Your task to perform on an android device: turn off javascript in the chrome app Image 0: 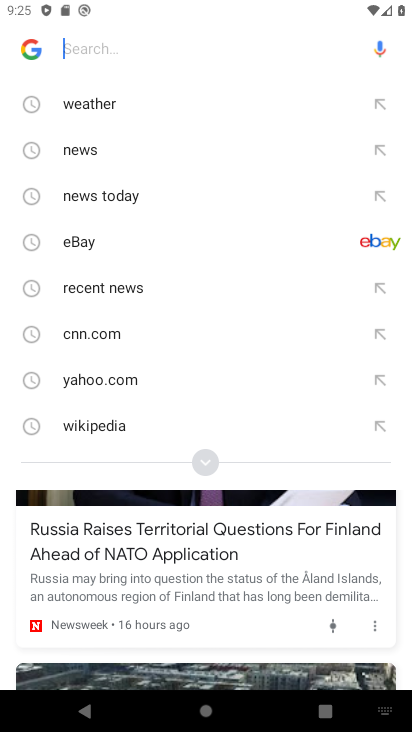
Step 0: press home button
Your task to perform on an android device: turn off javascript in the chrome app Image 1: 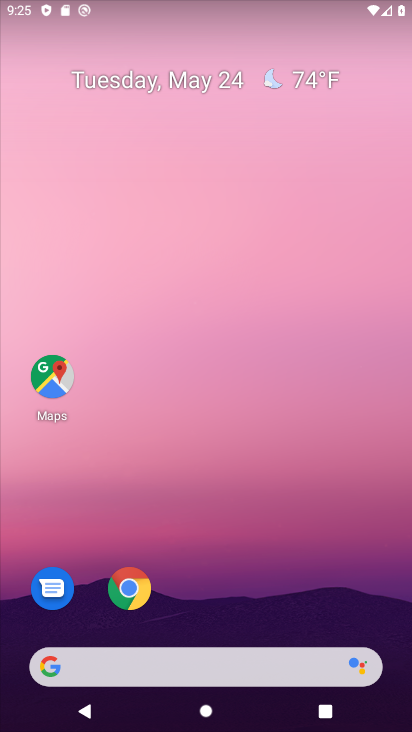
Step 1: click (128, 593)
Your task to perform on an android device: turn off javascript in the chrome app Image 2: 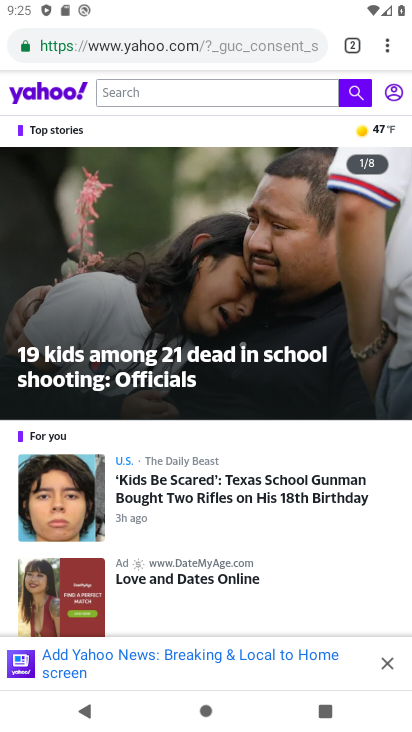
Step 2: click (395, 46)
Your task to perform on an android device: turn off javascript in the chrome app Image 3: 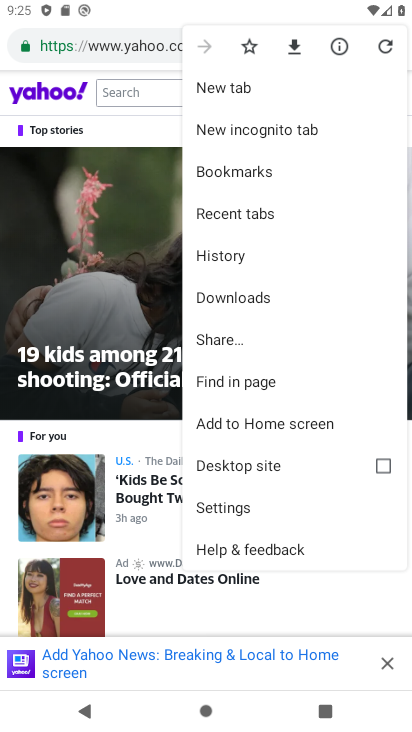
Step 3: click (218, 497)
Your task to perform on an android device: turn off javascript in the chrome app Image 4: 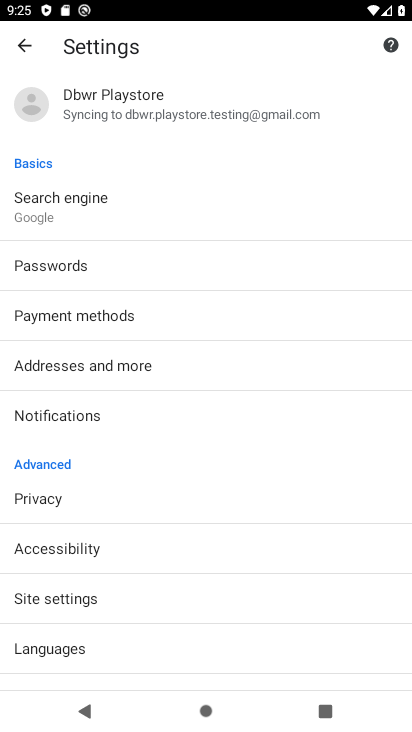
Step 4: click (30, 609)
Your task to perform on an android device: turn off javascript in the chrome app Image 5: 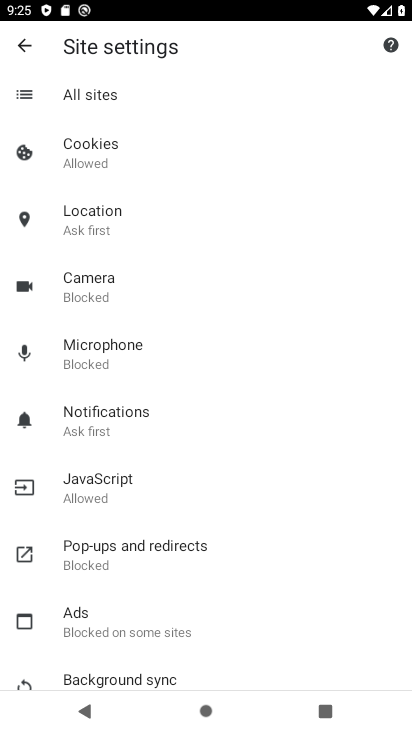
Step 5: click (160, 490)
Your task to perform on an android device: turn off javascript in the chrome app Image 6: 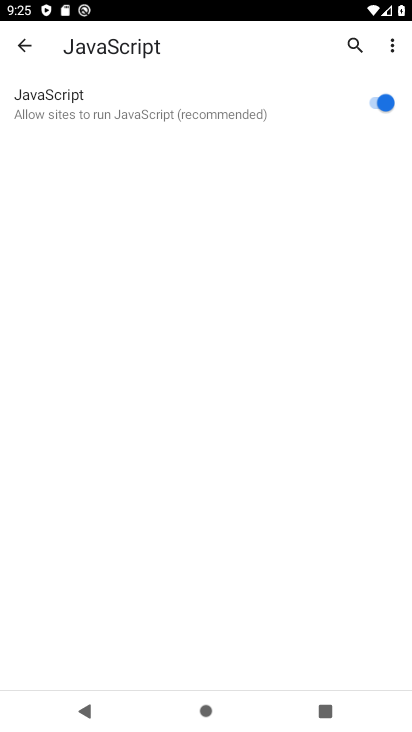
Step 6: click (379, 107)
Your task to perform on an android device: turn off javascript in the chrome app Image 7: 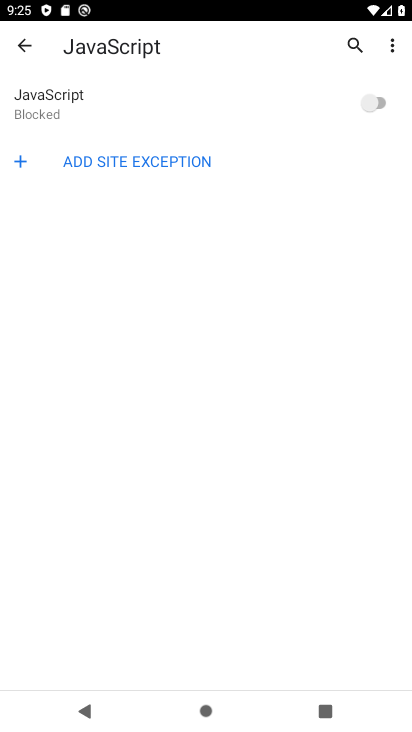
Step 7: task complete